Your task to perform on an android device: move a message to another label in the gmail app Image 0: 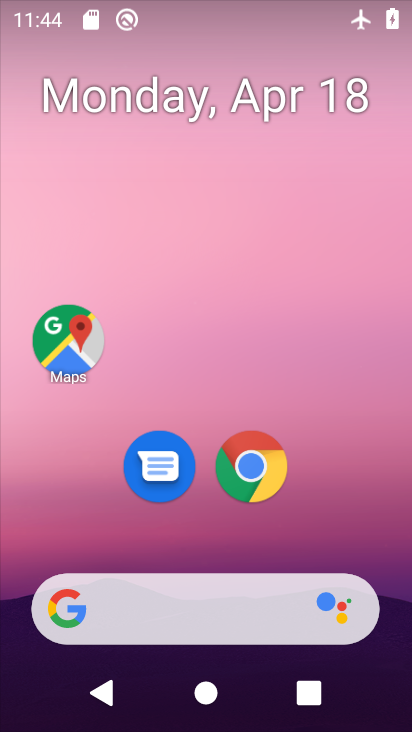
Step 0: drag from (241, 513) to (328, 54)
Your task to perform on an android device: move a message to another label in the gmail app Image 1: 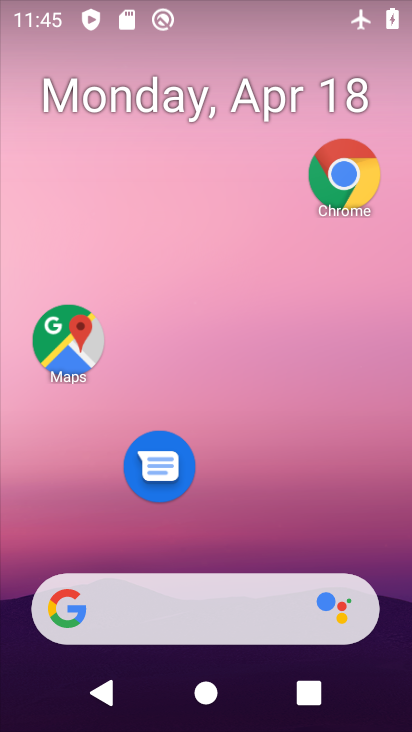
Step 1: drag from (301, 615) to (281, 280)
Your task to perform on an android device: move a message to another label in the gmail app Image 2: 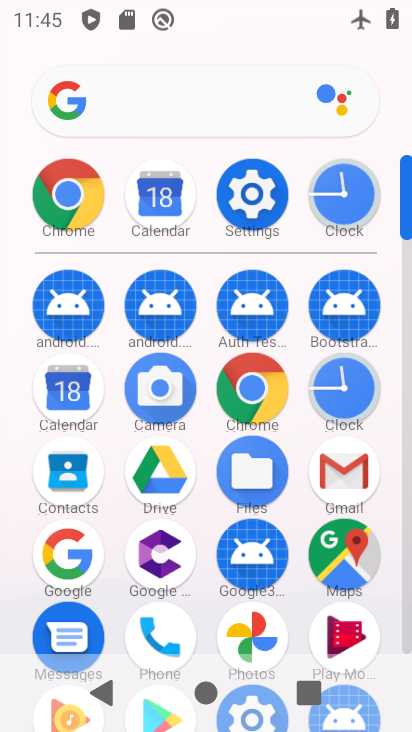
Step 2: click (342, 468)
Your task to perform on an android device: move a message to another label in the gmail app Image 3: 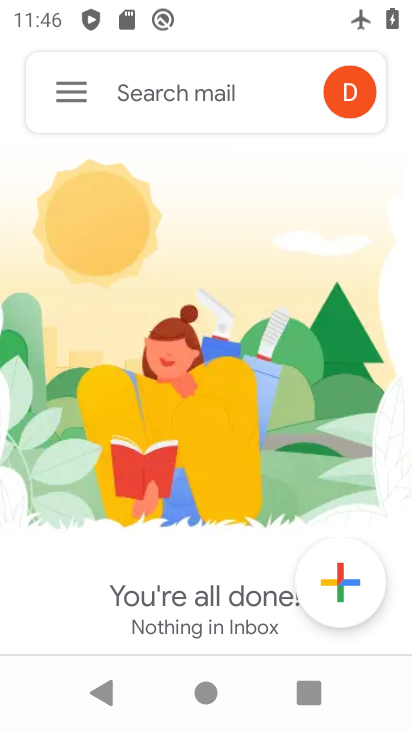
Step 3: click (67, 102)
Your task to perform on an android device: move a message to another label in the gmail app Image 4: 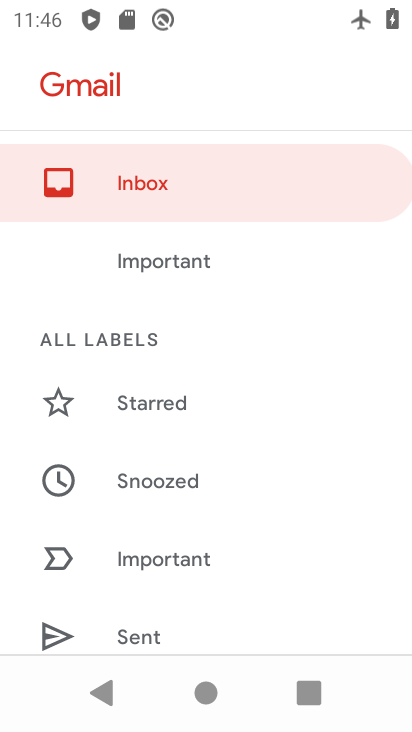
Step 4: drag from (278, 502) to (304, 162)
Your task to perform on an android device: move a message to another label in the gmail app Image 5: 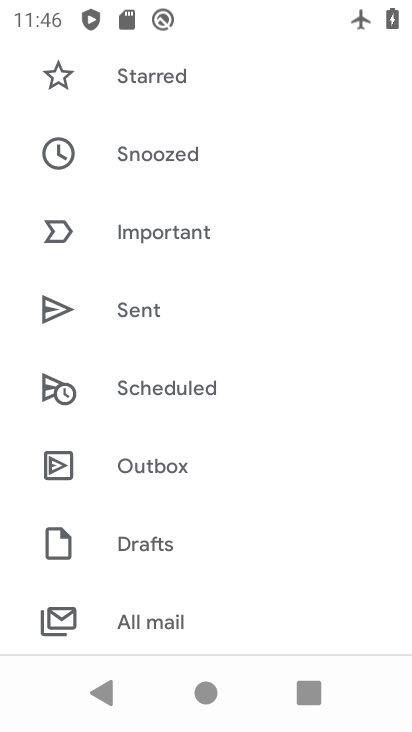
Step 5: click (188, 620)
Your task to perform on an android device: move a message to another label in the gmail app Image 6: 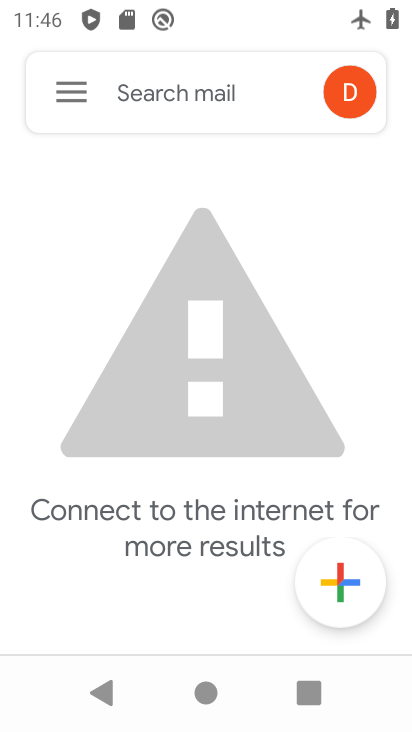
Step 6: task complete